Your task to perform on an android device: uninstall "Nova Launcher" Image 0: 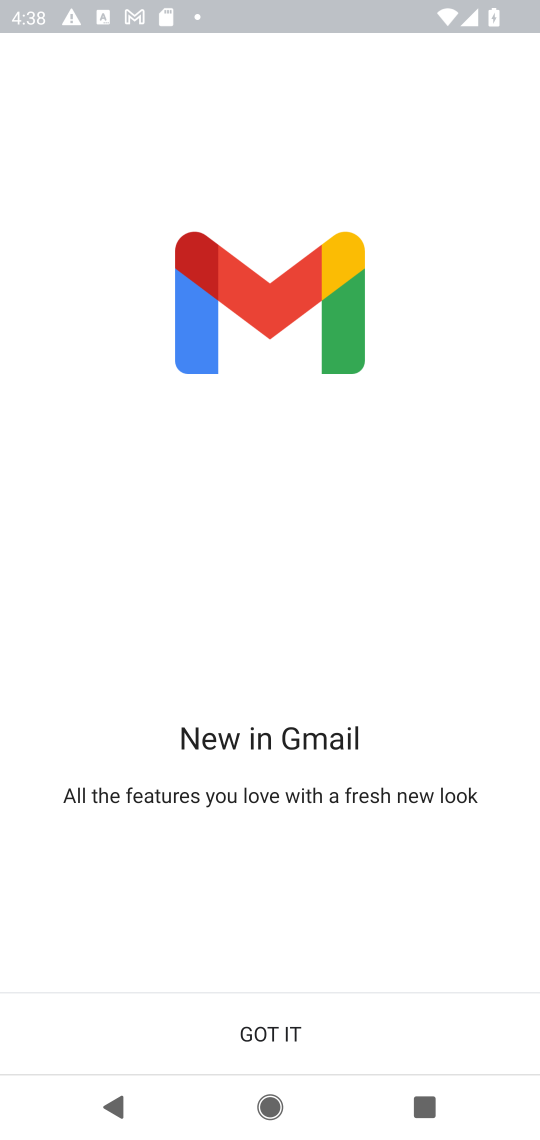
Step 0: press home button
Your task to perform on an android device: uninstall "Nova Launcher" Image 1: 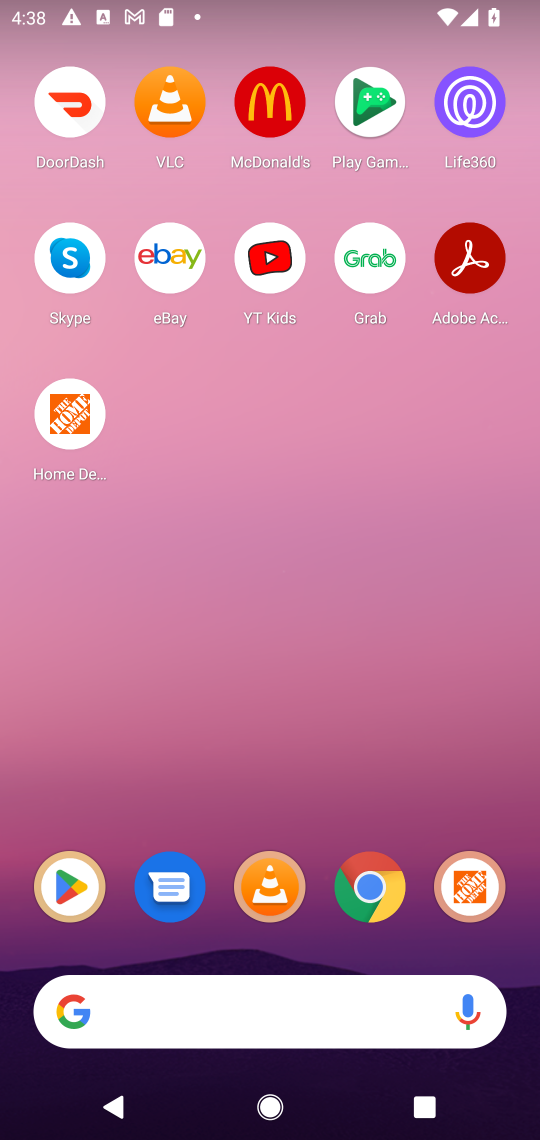
Step 1: click (68, 891)
Your task to perform on an android device: uninstall "Nova Launcher" Image 2: 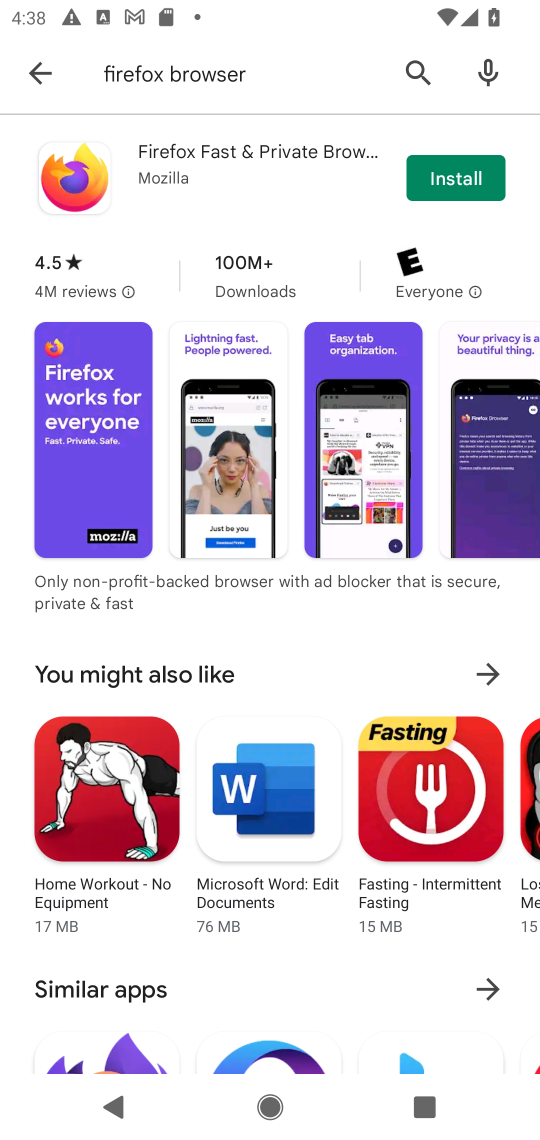
Step 2: click (231, 76)
Your task to perform on an android device: uninstall "Nova Launcher" Image 3: 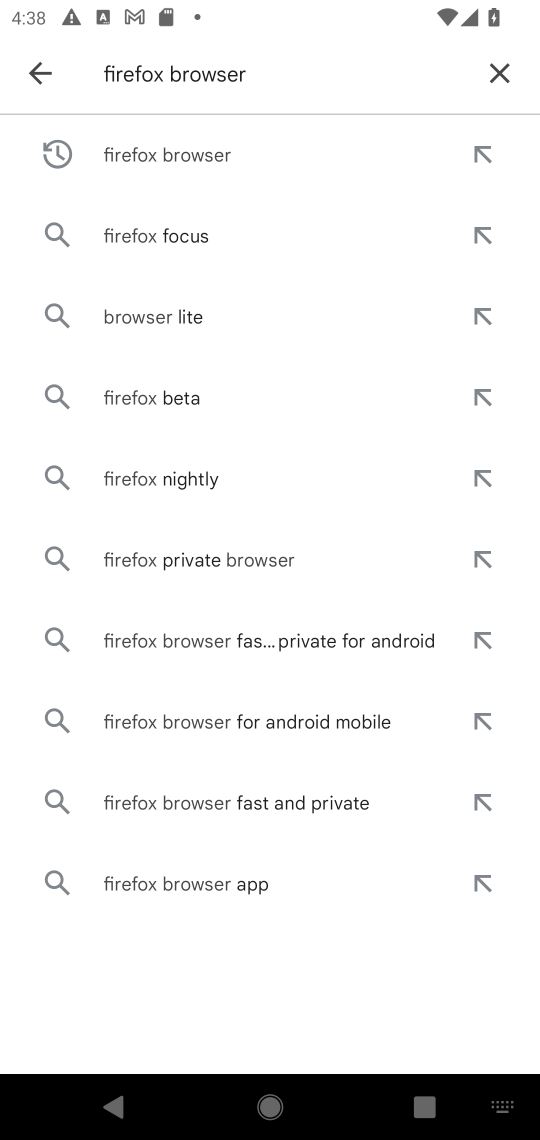
Step 3: click (500, 55)
Your task to perform on an android device: uninstall "Nova Launcher" Image 4: 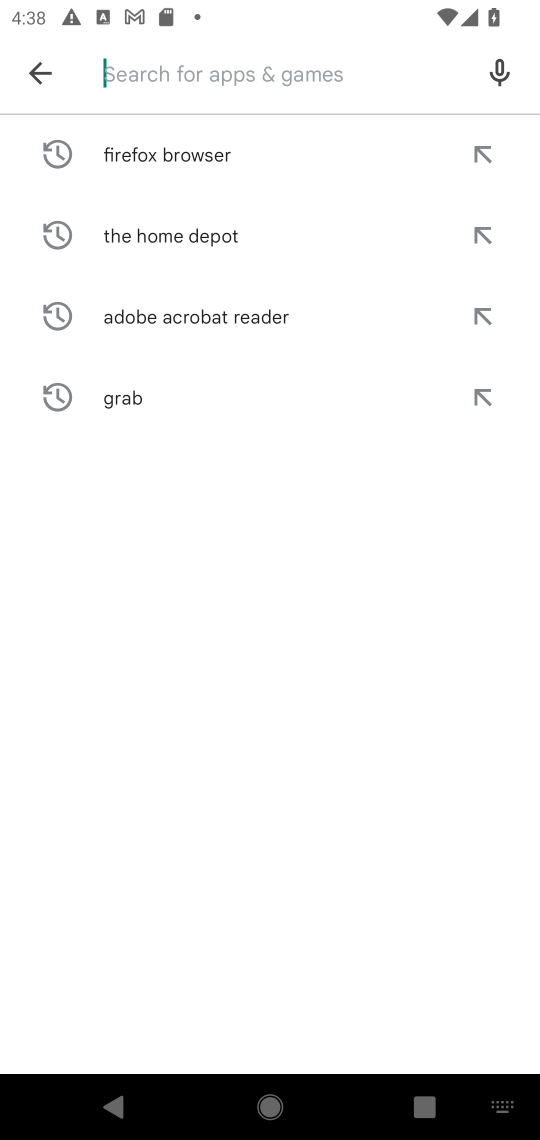
Step 4: type "Nova Launcher"
Your task to perform on an android device: uninstall "Nova Launcher" Image 5: 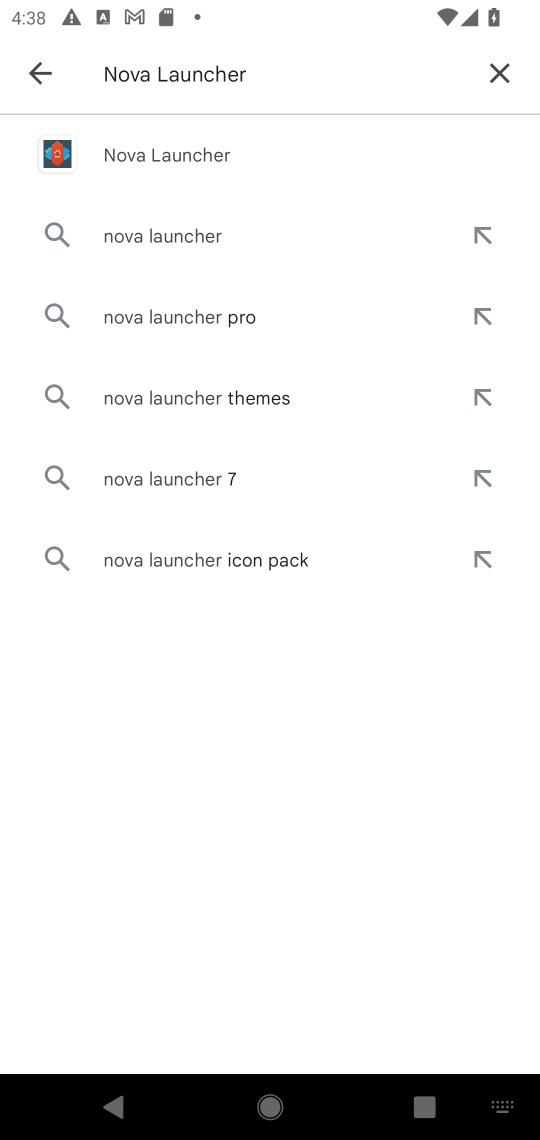
Step 5: click (172, 176)
Your task to perform on an android device: uninstall "Nova Launcher" Image 6: 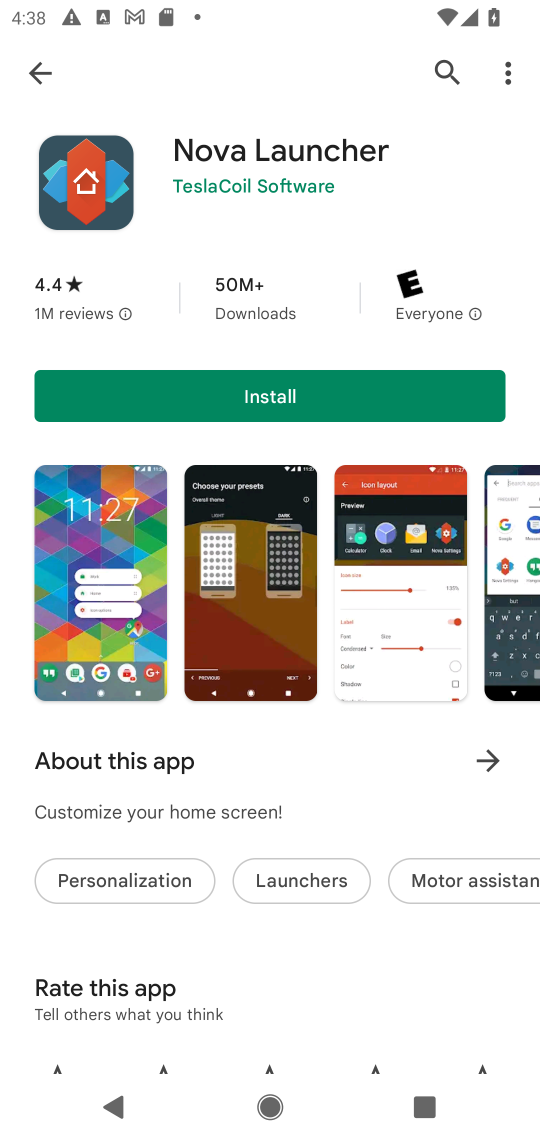
Step 6: task complete